Your task to perform on an android device: Go to privacy settings Image 0: 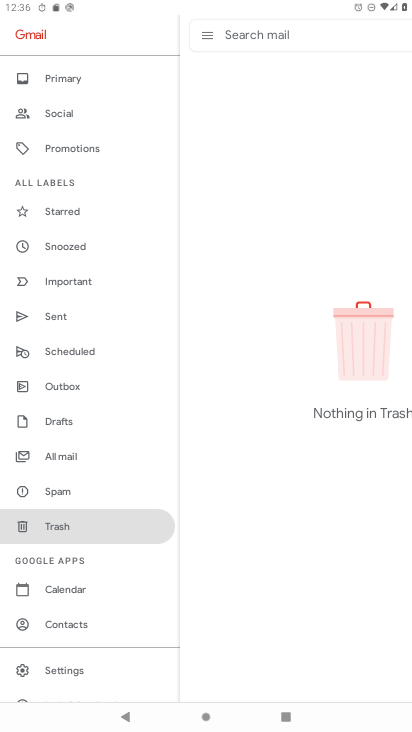
Step 0: press home button
Your task to perform on an android device: Go to privacy settings Image 1: 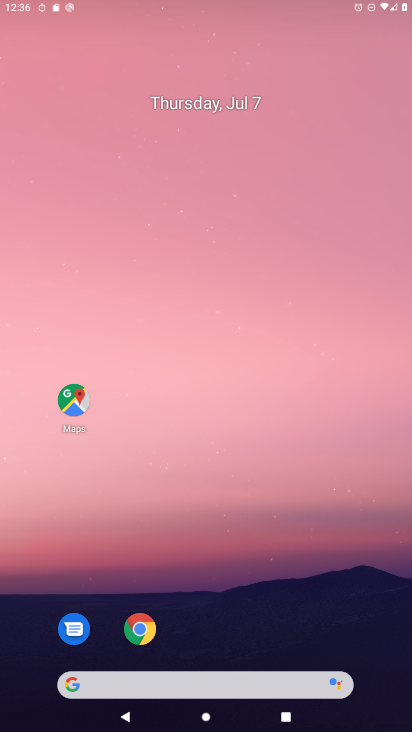
Step 1: drag from (233, 517) to (233, 156)
Your task to perform on an android device: Go to privacy settings Image 2: 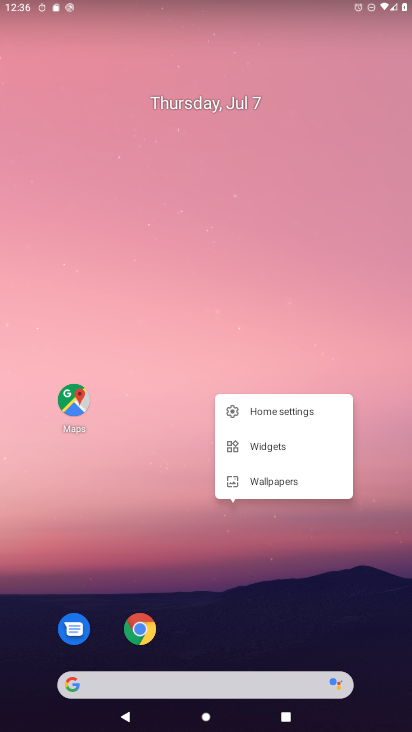
Step 2: click (177, 555)
Your task to perform on an android device: Go to privacy settings Image 3: 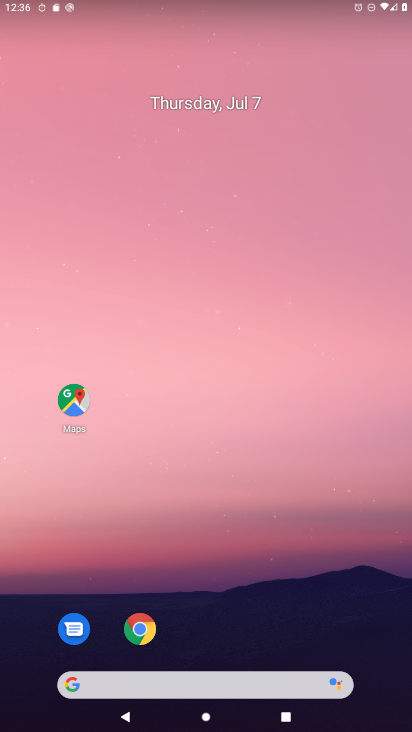
Step 3: drag from (209, 475) to (230, 145)
Your task to perform on an android device: Go to privacy settings Image 4: 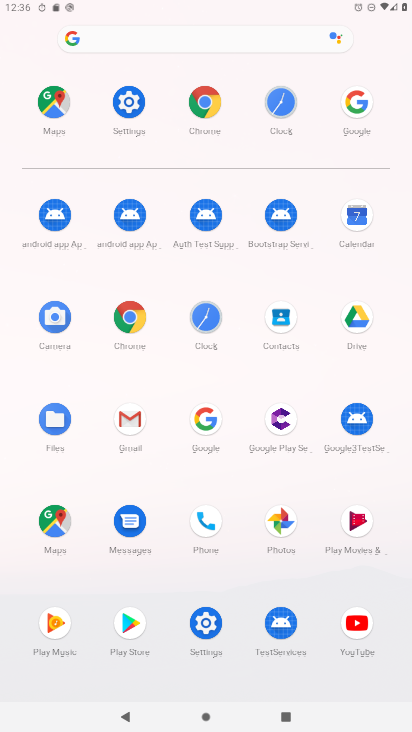
Step 4: click (147, 101)
Your task to perform on an android device: Go to privacy settings Image 5: 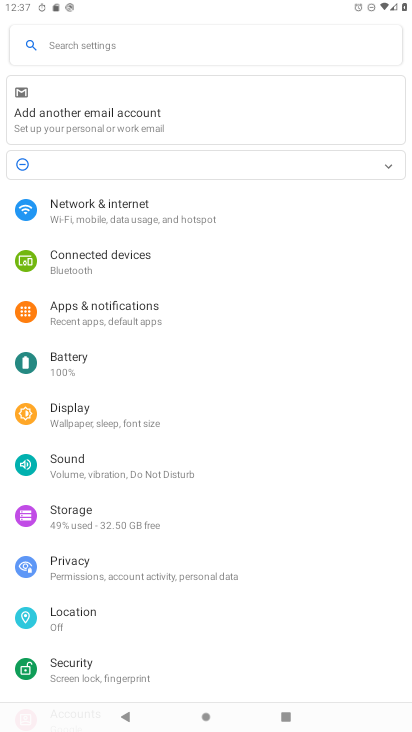
Step 5: click (103, 555)
Your task to perform on an android device: Go to privacy settings Image 6: 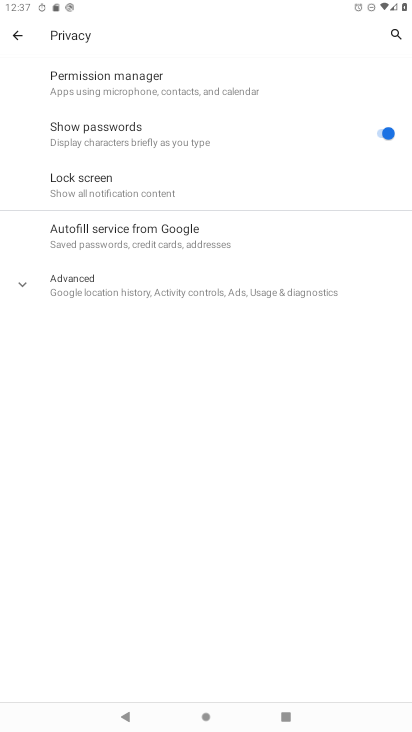
Step 6: task complete